Your task to perform on an android device: Set the phone to "Do not disturb". Image 0: 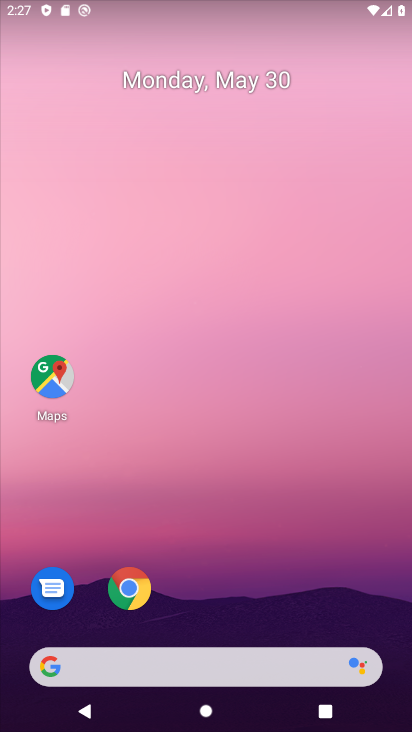
Step 0: drag from (216, 3) to (226, 461)
Your task to perform on an android device: Set the phone to "Do not disturb". Image 1: 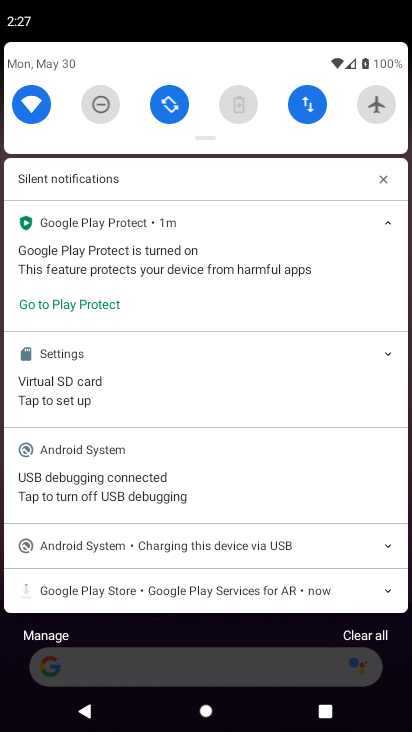
Step 1: click (107, 106)
Your task to perform on an android device: Set the phone to "Do not disturb". Image 2: 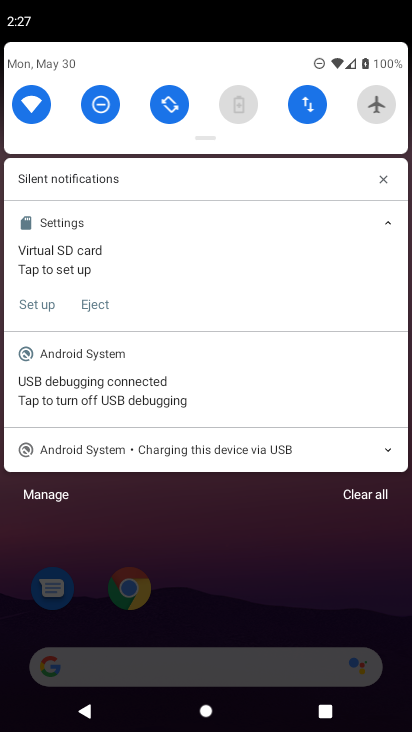
Step 2: task complete